Your task to perform on an android device: see sites visited before in the chrome app Image 0: 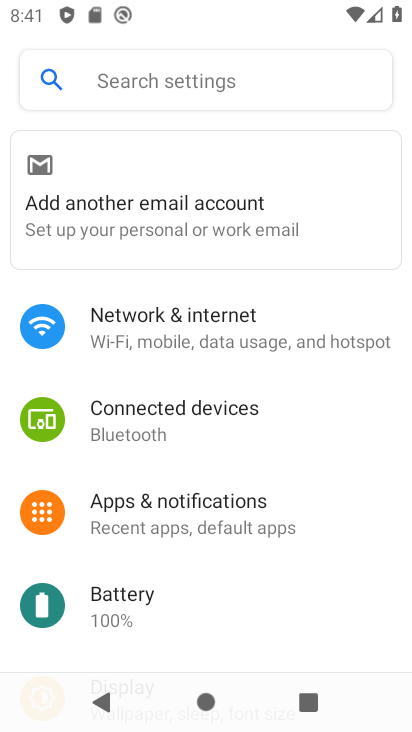
Step 0: press home button
Your task to perform on an android device: see sites visited before in the chrome app Image 1: 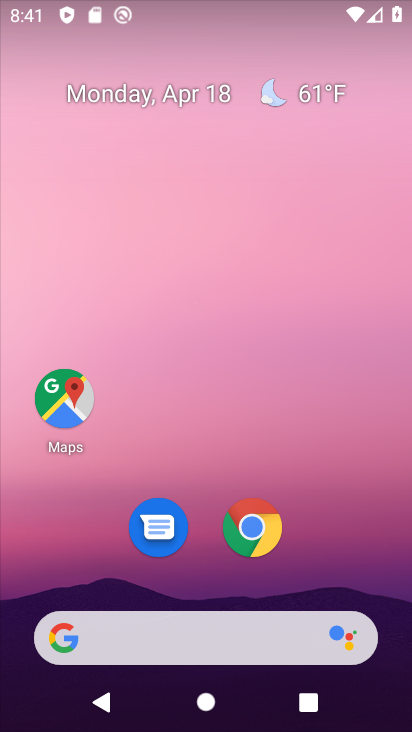
Step 1: click (257, 534)
Your task to perform on an android device: see sites visited before in the chrome app Image 2: 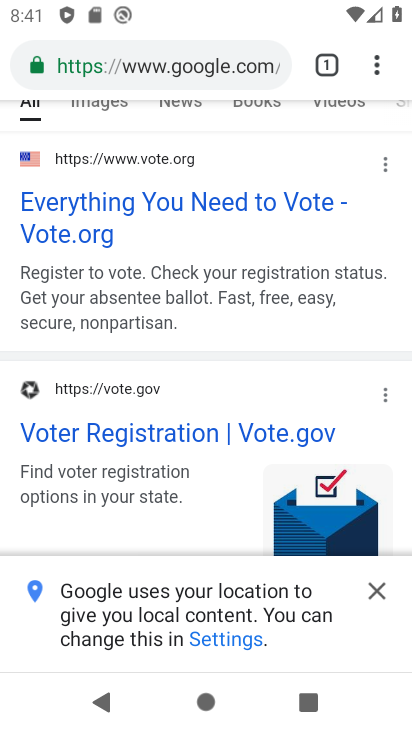
Step 2: click (379, 66)
Your task to perform on an android device: see sites visited before in the chrome app Image 3: 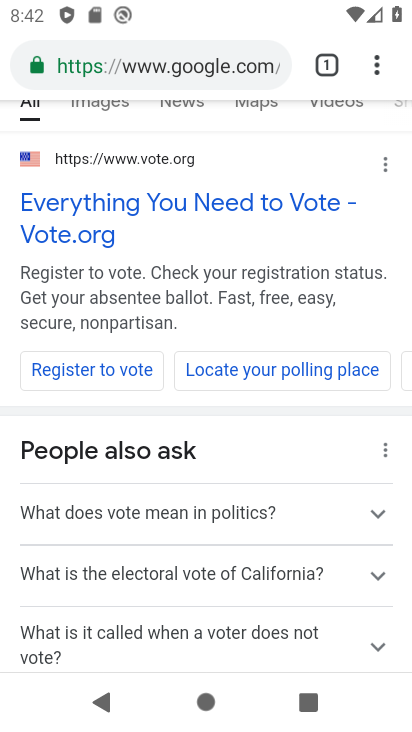
Step 3: click (379, 62)
Your task to perform on an android device: see sites visited before in the chrome app Image 4: 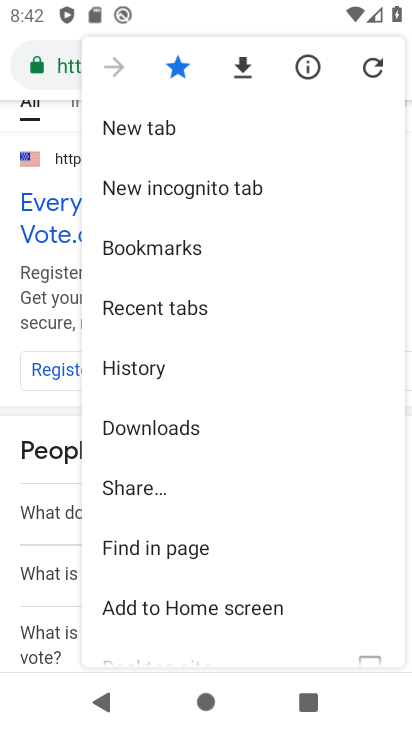
Step 4: click (133, 376)
Your task to perform on an android device: see sites visited before in the chrome app Image 5: 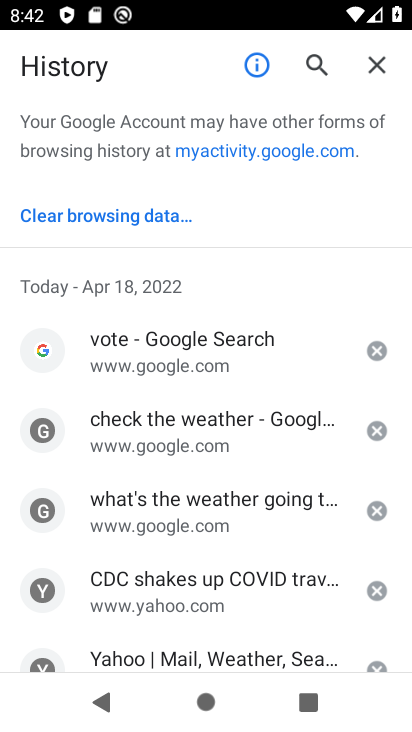
Step 5: task complete